Your task to perform on an android device: change the upload size in google photos Image 0: 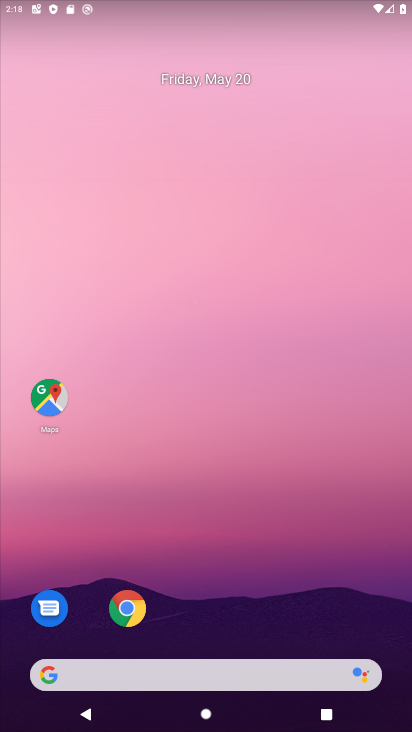
Step 0: drag from (210, 579) to (277, 106)
Your task to perform on an android device: change the upload size in google photos Image 1: 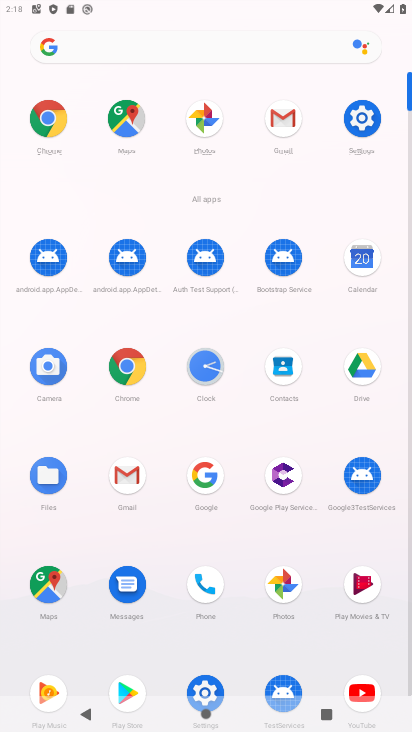
Step 1: click (277, 588)
Your task to perform on an android device: change the upload size in google photos Image 2: 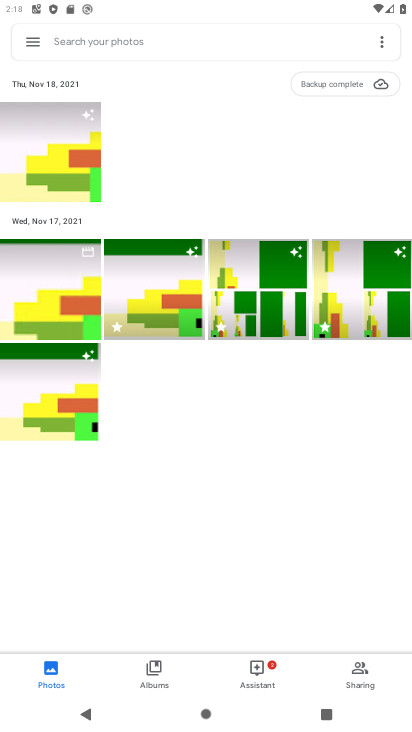
Step 2: click (29, 40)
Your task to perform on an android device: change the upload size in google photos Image 3: 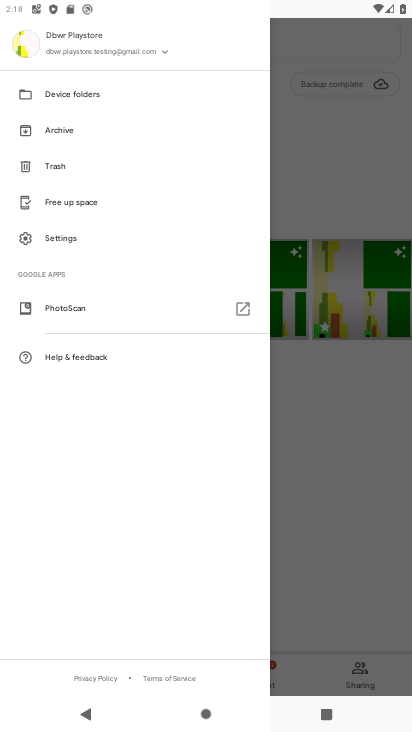
Step 3: click (64, 237)
Your task to perform on an android device: change the upload size in google photos Image 4: 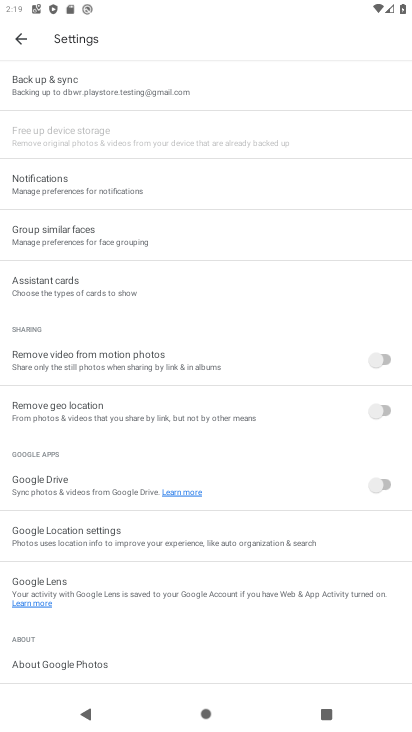
Step 4: click (63, 88)
Your task to perform on an android device: change the upload size in google photos Image 5: 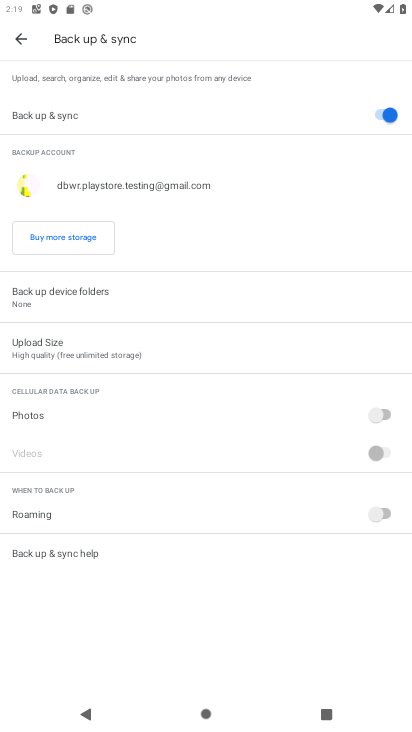
Step 5: click (73, 346)
Your task to perform on an android device: change the upload size in google photos Image 6: 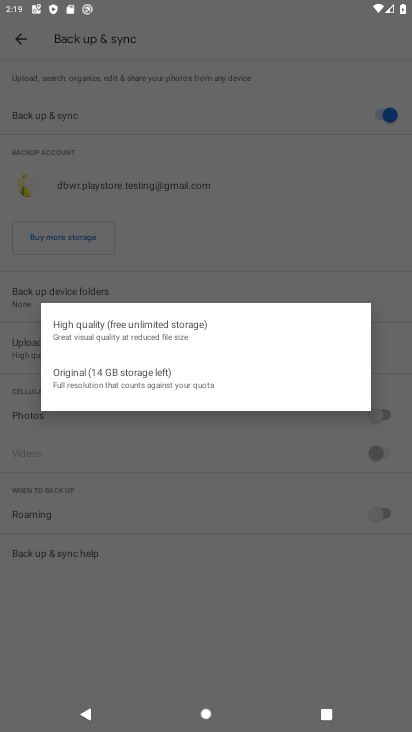
Step 6: click (79, 374)
Your task to perform on an android device: change the upload size in google photos Image 7: 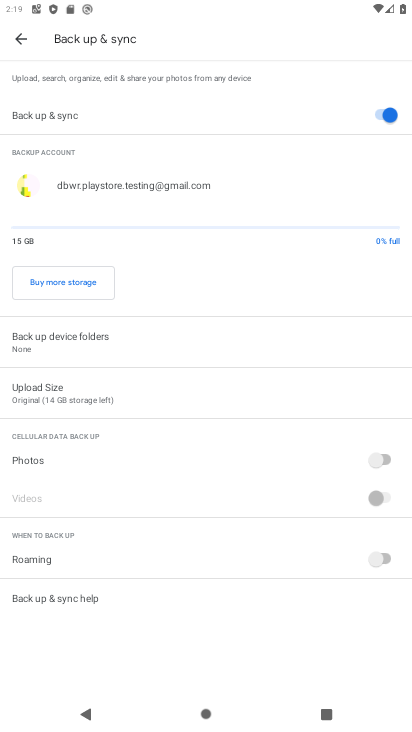
Step 7: task complete